Your task to perform on an android device: Go to Yahoo.com Image 0: 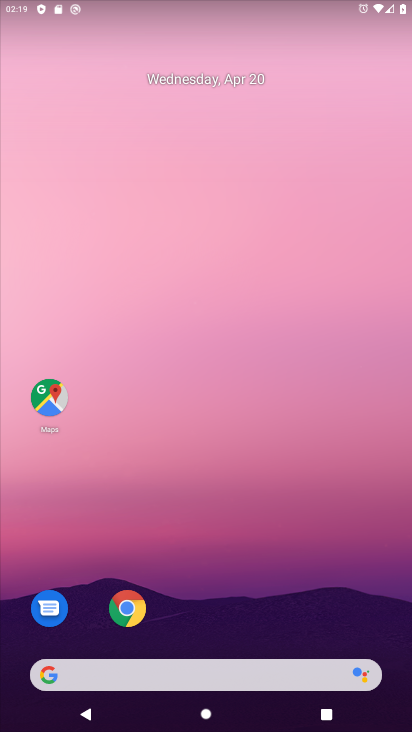
Step 0: drag from (251, 586) to (231, 178)
Your task to perform on an android device: Go to Yahoo.com Image 1: 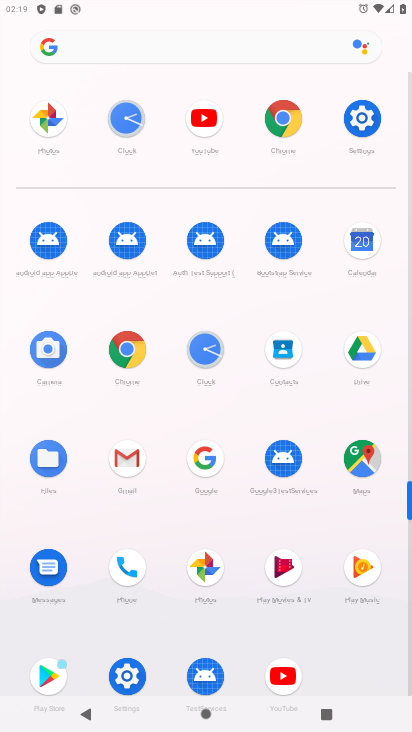
Step 1: click (285, 116)
Your task to perform on an android device: Go to Yahoo.com Image 2: 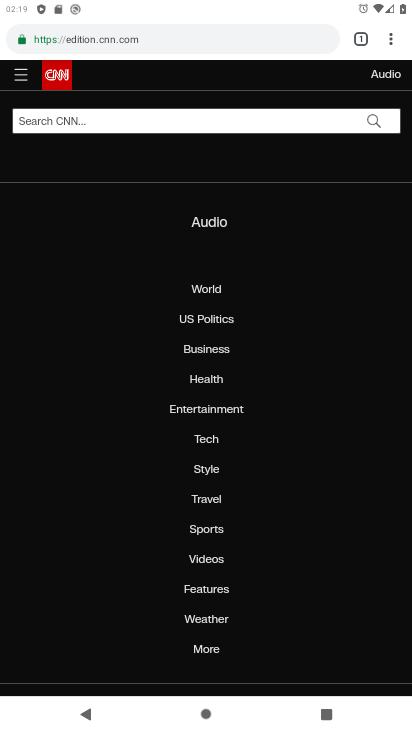
Step 2: click (367, 42)
Your task to perform on an android device: Go to Yahoo.com Image 3: 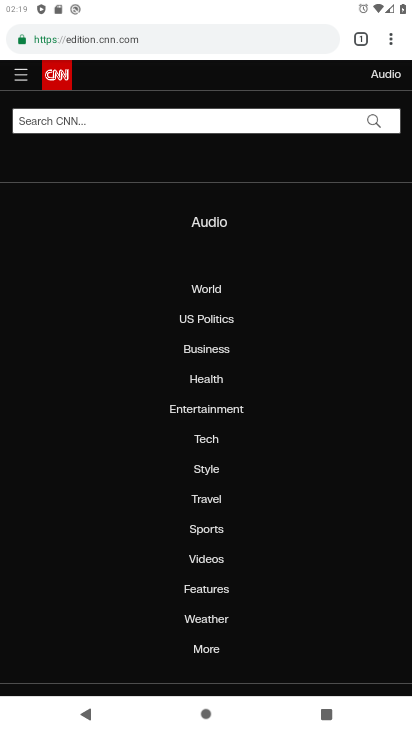
Step 3: click (366, 41)
Your task to perform on an android device: Go to Yahoo.com Image 4: 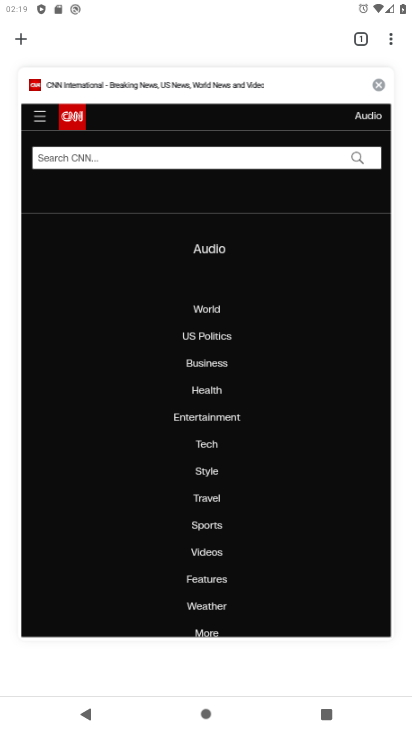
Step 4: click (21, 35)
Your task to perform on an android device: Go to Yahoo.com Image 5: 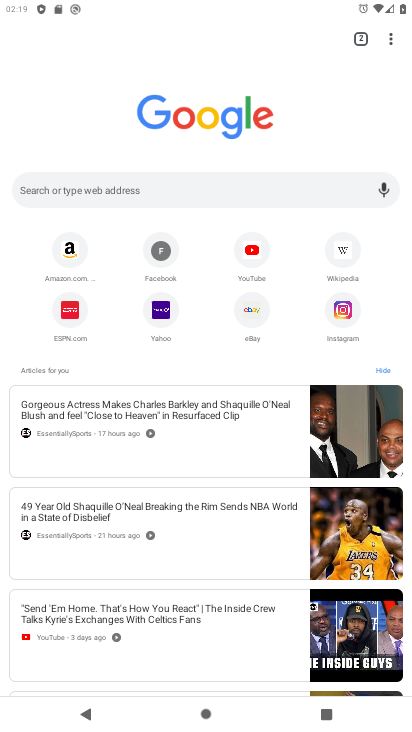
Step 5: click (166, 317)
Your task to perform on an android device: Go to Yahoo.com Image 6: 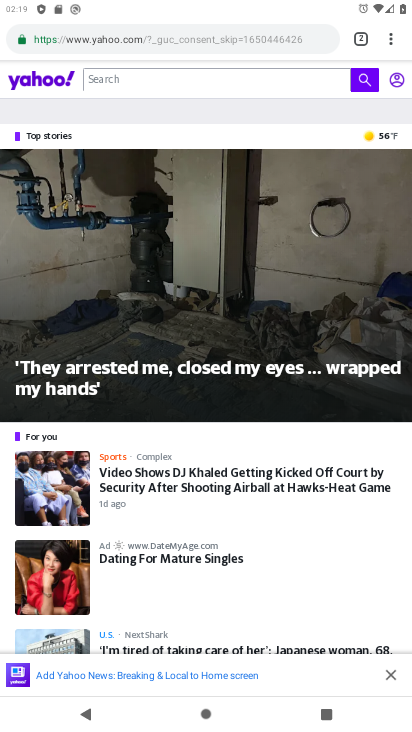
Step 6: task complete